Your task to perform on an android device: turn on notifications settings in the gmail app Image 0: 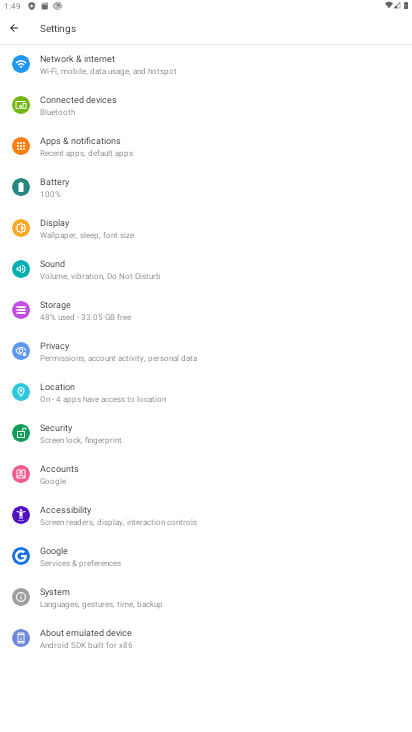
Step 0: press home button
Your task to perform on an android device: turn on notifications settings in the gmail app Image 1: 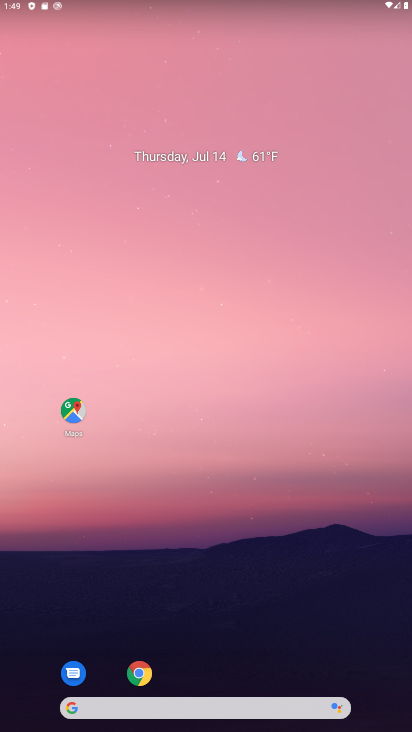
Step 1: drag from (196, 661) to (253, 321)
Your task to perform on an android device: turn on notifications settings in the gmail app Image 2: 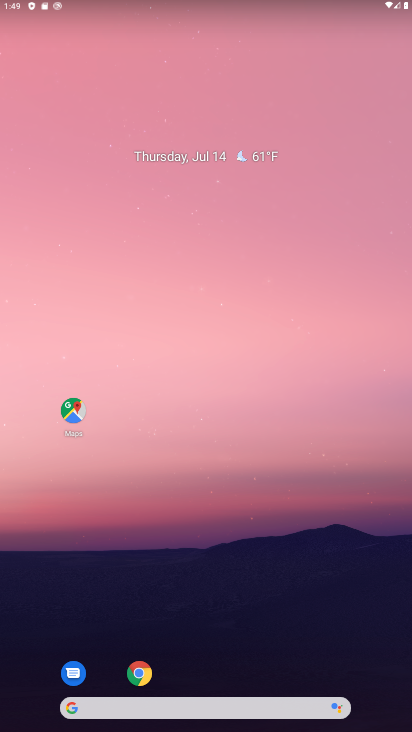
Step 2: drag from (216, 596) to (258, 171)
Your task to perform on an android device: turn on notifications settings in the gmail app Image 3: 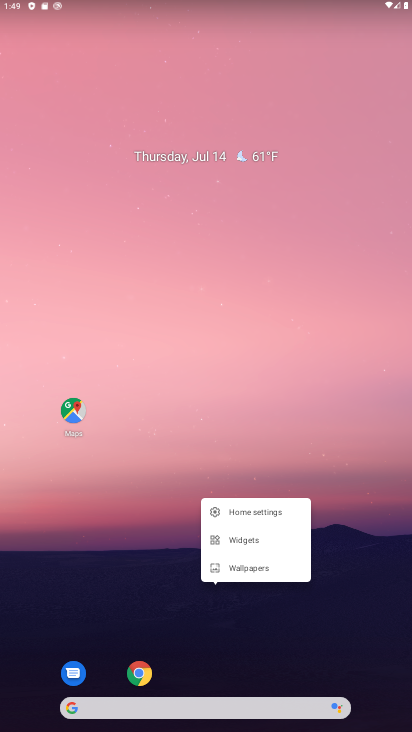
Step 3: drag from (186, 672) to (189, 180)
Your task to perform on an android device: turn on notifications settings in the gmail app Image 4: 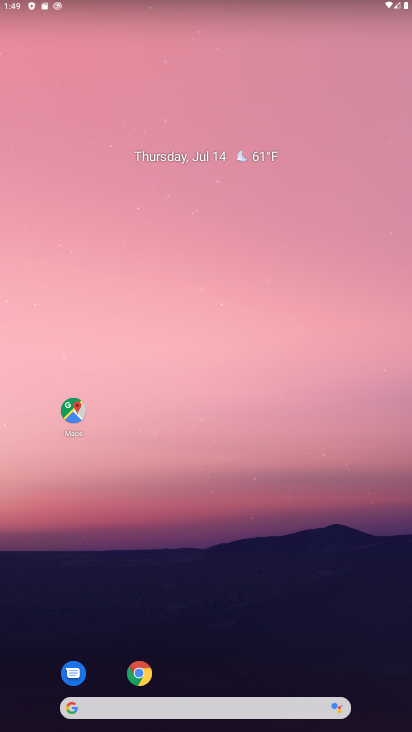
Step 4: drag from (207, 672) to (190, 100)
Your task to perform on an android device: turn on notifications settings in the gmail app Image 5: 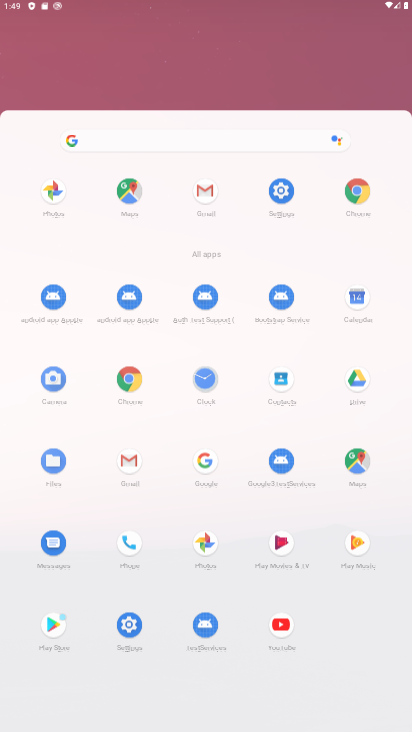
Step 5: click (190, 100)
Your task to perform on an android device: turn on notifications settings in the gmail app Image 6: 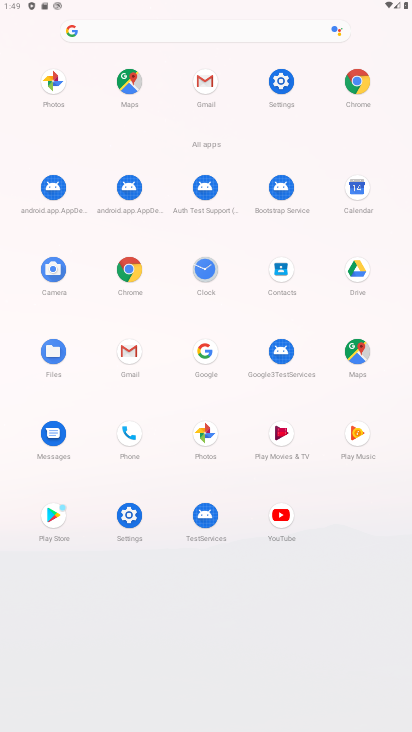
Step 6: click (283, 88)
Your task to perform on an android device: turn on notifications settings in the gmail app Image 7: 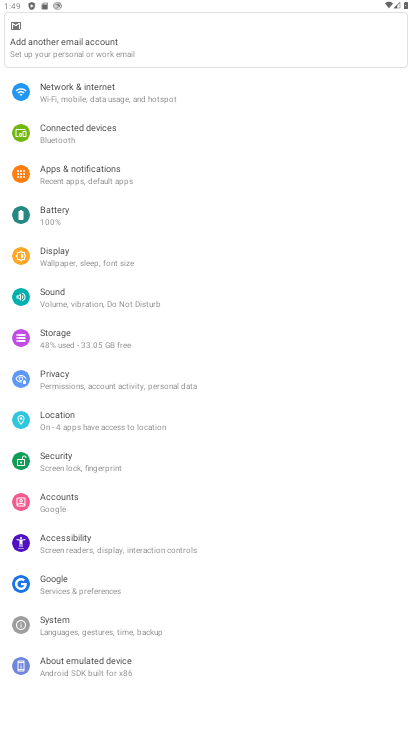
Step 7: click (63, 183)
Your task to perform on an android device: turn on notifications settings in the gmail app Image 8: 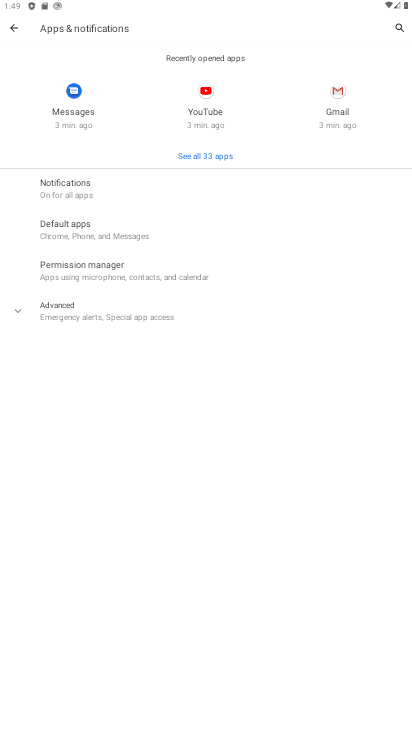
Step 8: click (80, 168)
Your task to perform on an android device: turn on notifications settings in the gmail app Image 9: 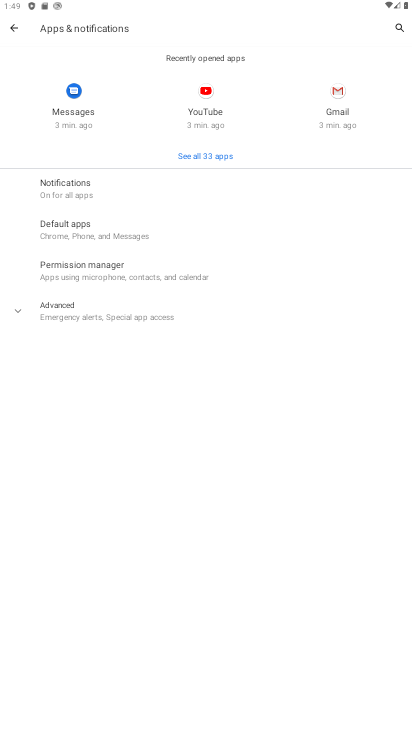
Step 9: click (96, 188)
Your task to perform on an android device: turn on notifications settings in the gmail app Image 10: 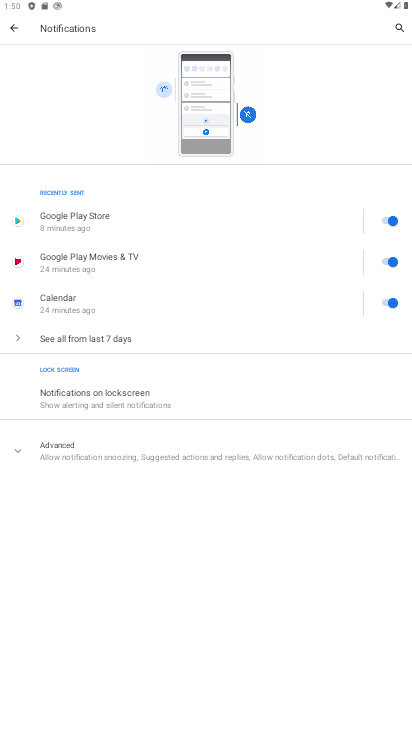
Step 10: click (33, 339)
Your task to perform on an android device: turn on notifications settings in the gmail app Image 11: 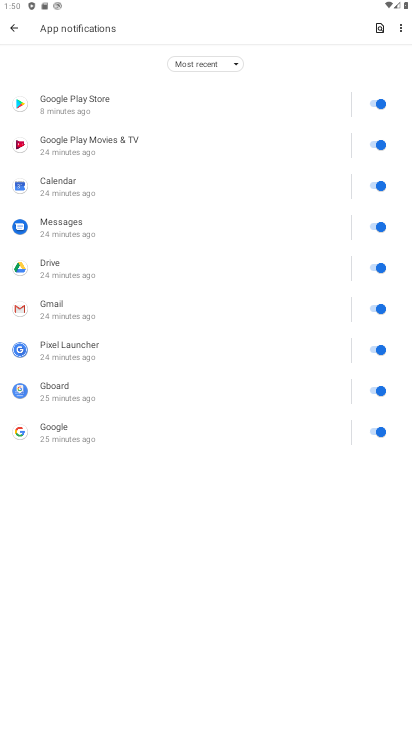
Step 11: click (51, 295)
Your task to perform on an android device: turn on notifications settings in the gmail app Image 12: 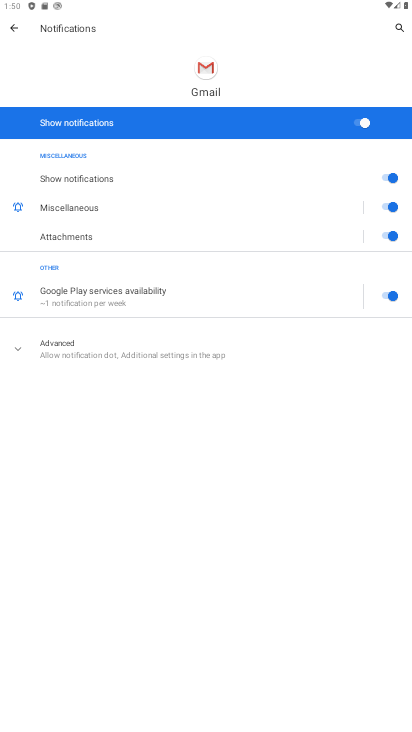
Step 12: task complete